Your task to perform on an android device: Go to Android settings Image 0: 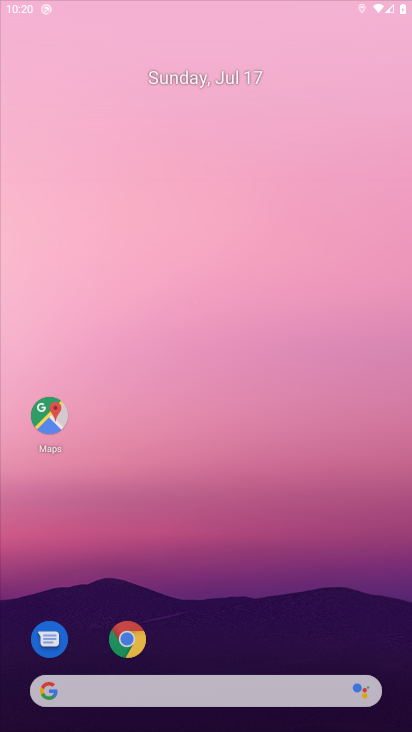
Step 0: press home button
Your task to perform on an android device: Go to Android settings Image 1: 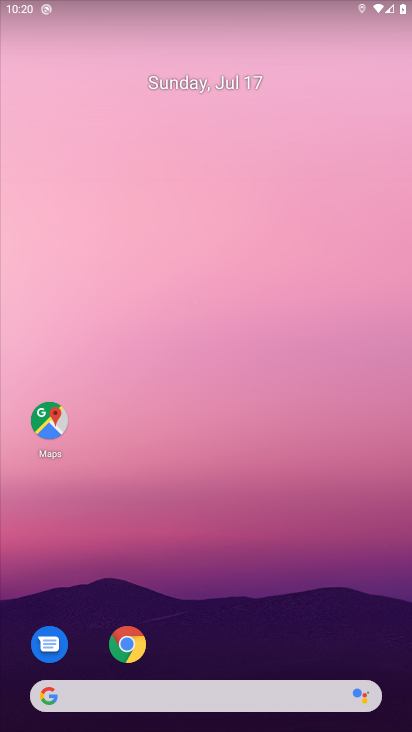
Step 1: drag from (234, 662) to (228, 121)
Your task to perform on an android device: Go to Android settings Image 2: 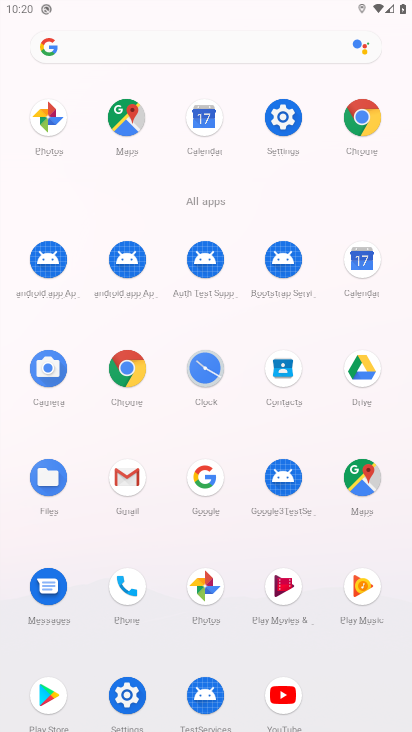
Step 2: click (286, 121)
Your task to perform on an android device: Go to Android settings Image 3: 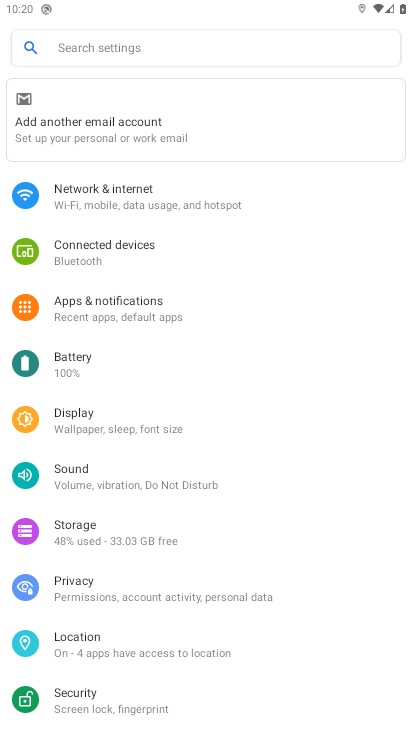
Step 3: task complete